Your task to perform on an android device: turn off notifications settings in the gmail app Image 0: 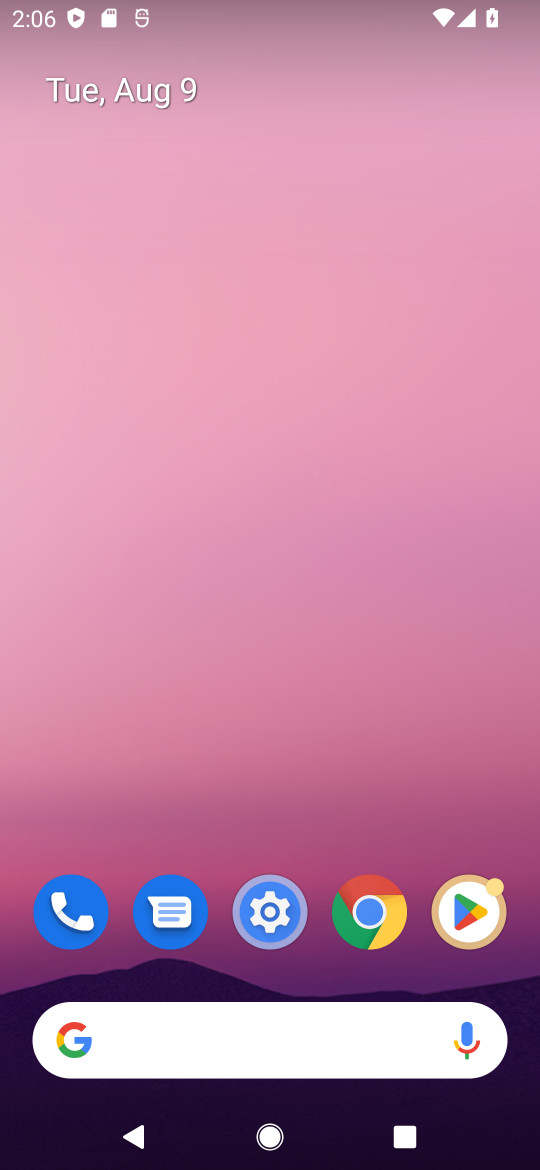
Step 0: drag from (307, 788) to (261, 202)
Your task to perform on an android device: turn off notifications settings in the gmail app Image 1: 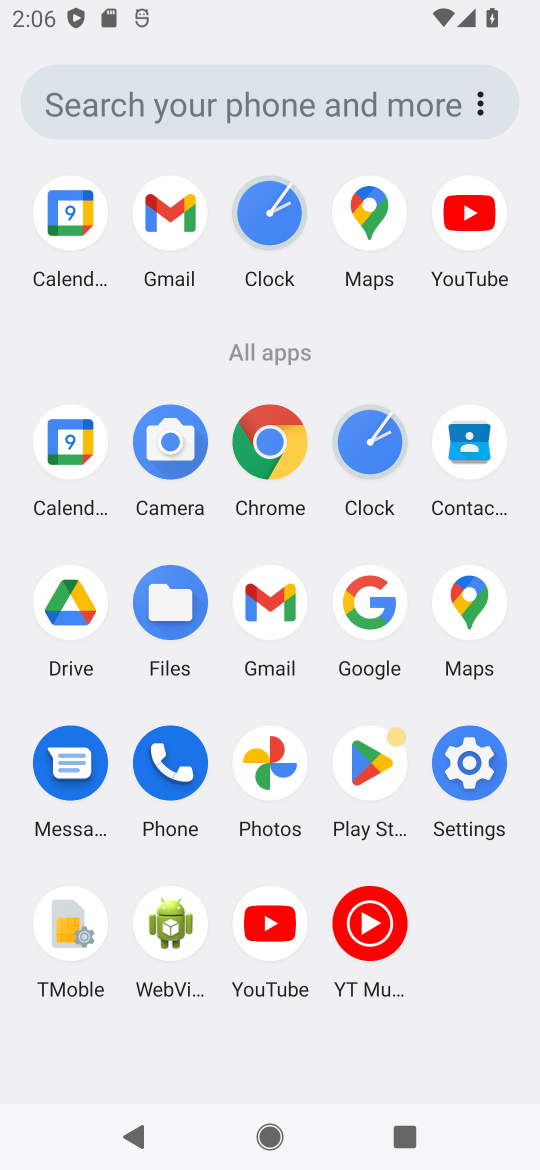
Step 1: click (271, 612)
Your task to perform on an android device: turn off notifications settings in the gmail app Image 2: 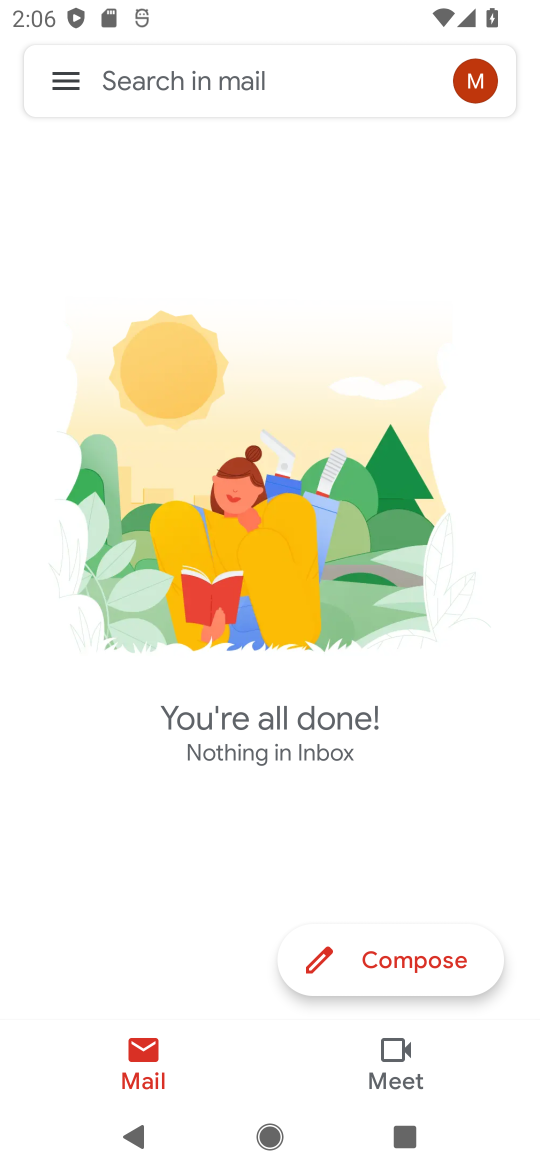
Step 2: click (54, 83)
Your task to perform on an android device: turn off notifications settings in the gmail app Image 3: 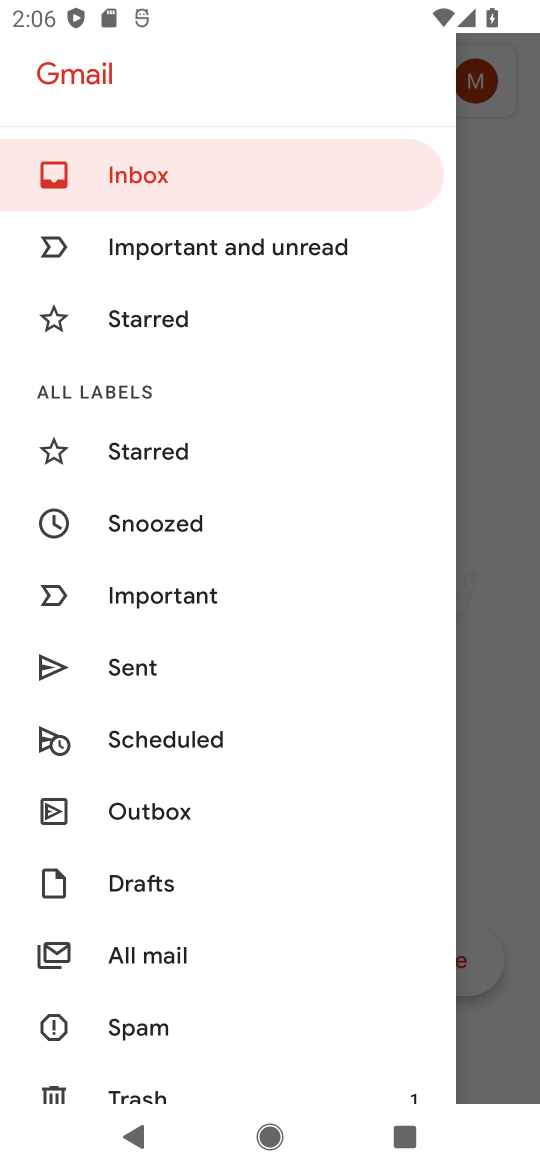
Step 3: drag from (260, 926) to (226, 460)
Your task to perform on an android device: turn off notifications settings in the gmail app Image 4: 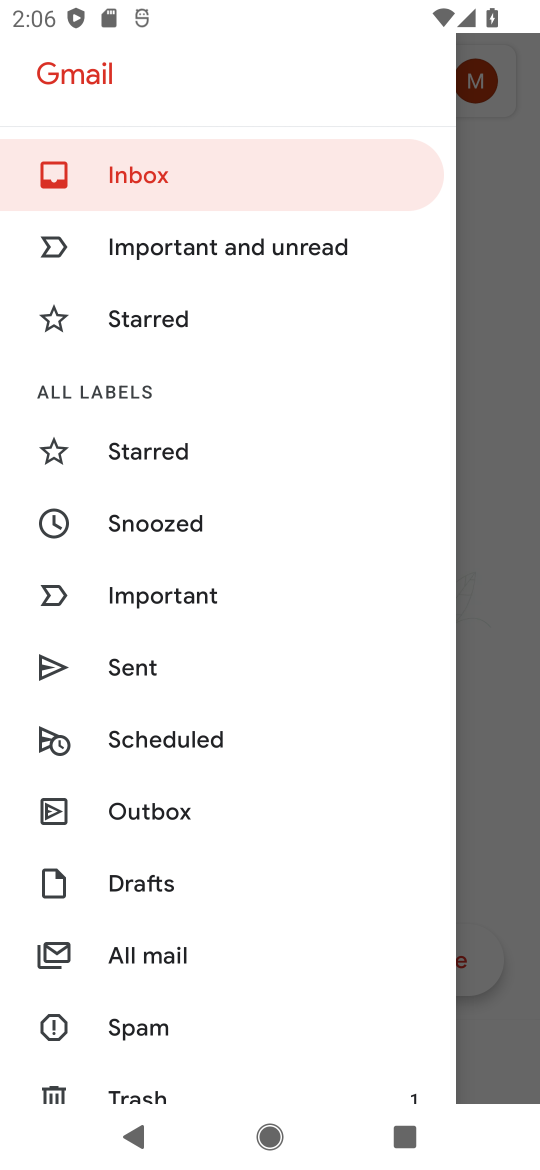
Step 4: drag from (230, 802) to (216, 279)
Your task to perform on an android device: turn off notifications settings in the gmail app Image 5: 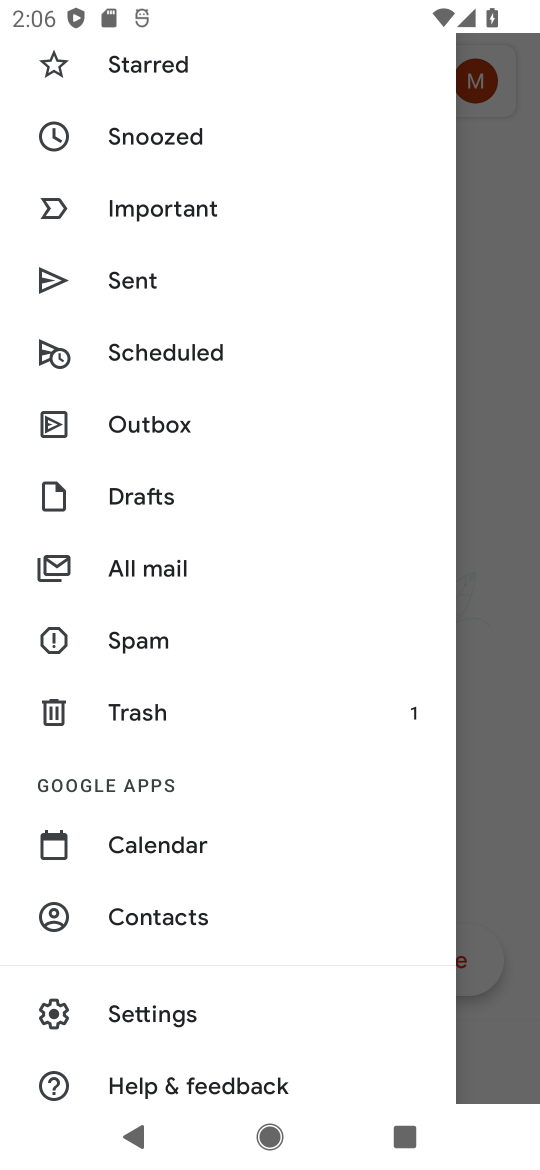
Step 5: click (139, 1011)
Your task to perform on an android device: turn off notifications settings in the gmail app Image 6: 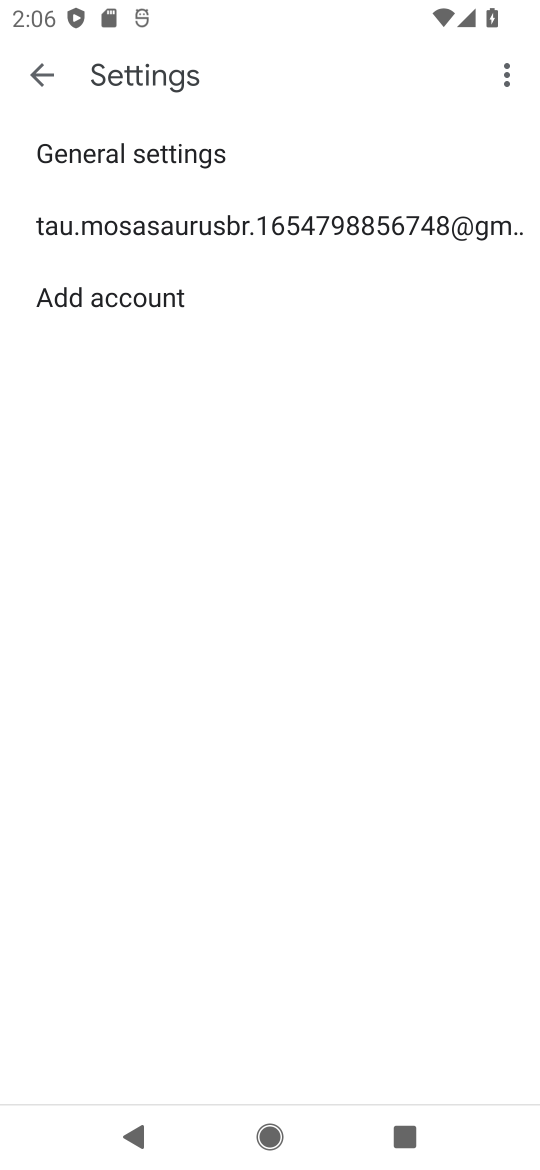
Step 6: click (136, 148)
Your task to perform on an android device: turn off notifications settings in the gmail app Image 7: 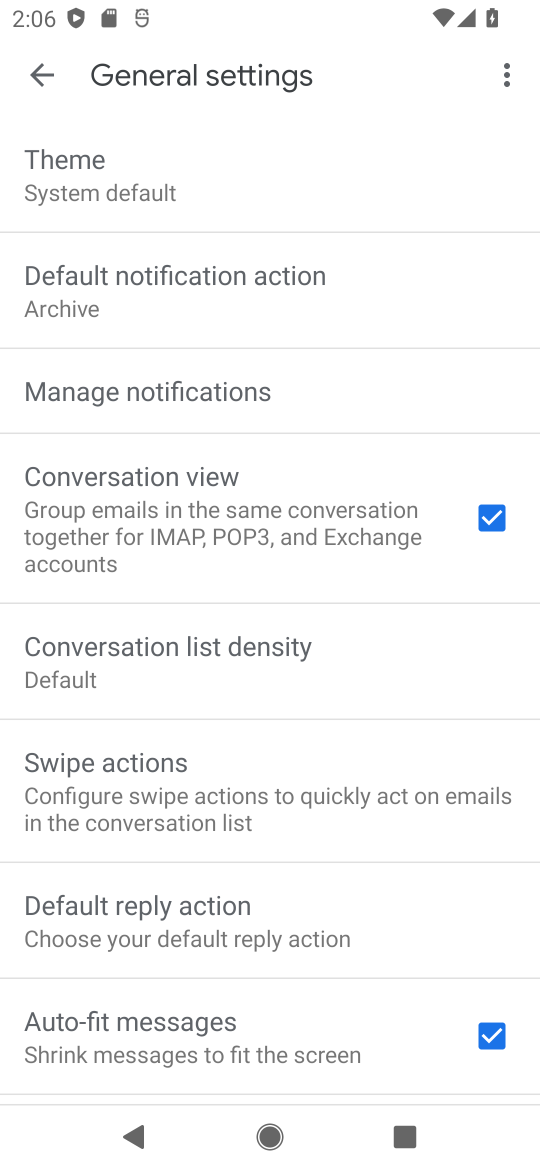
Step 7: click (183, 386)
Your task to perform on an android device: turn off notifications settings in the gmail app Image 8: 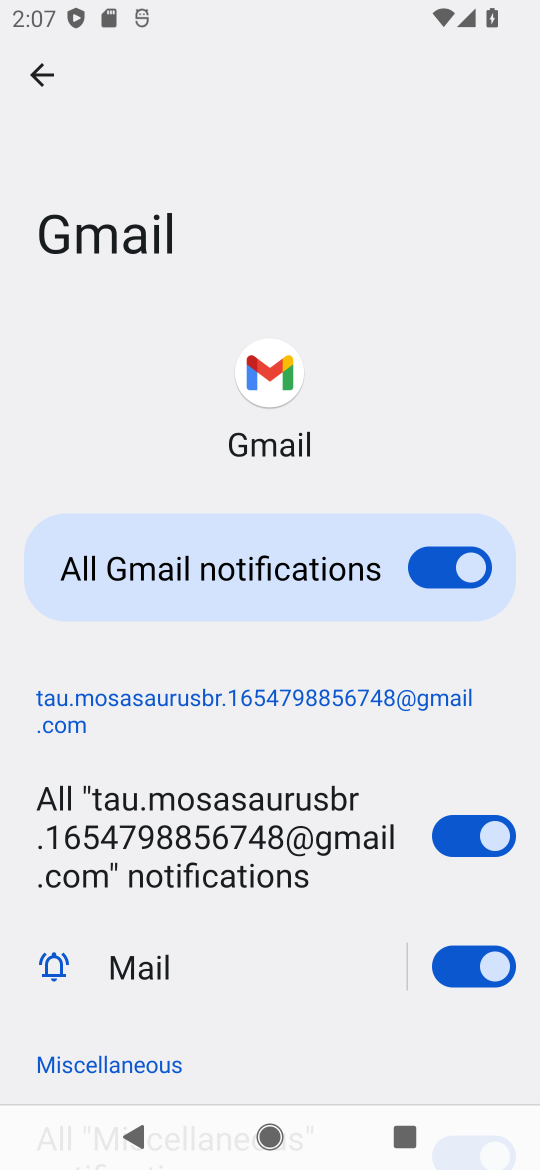
Step 8: click (456, 570)
Your task to perform on an android device: turn off notifications settings in the gmail app Image 9: 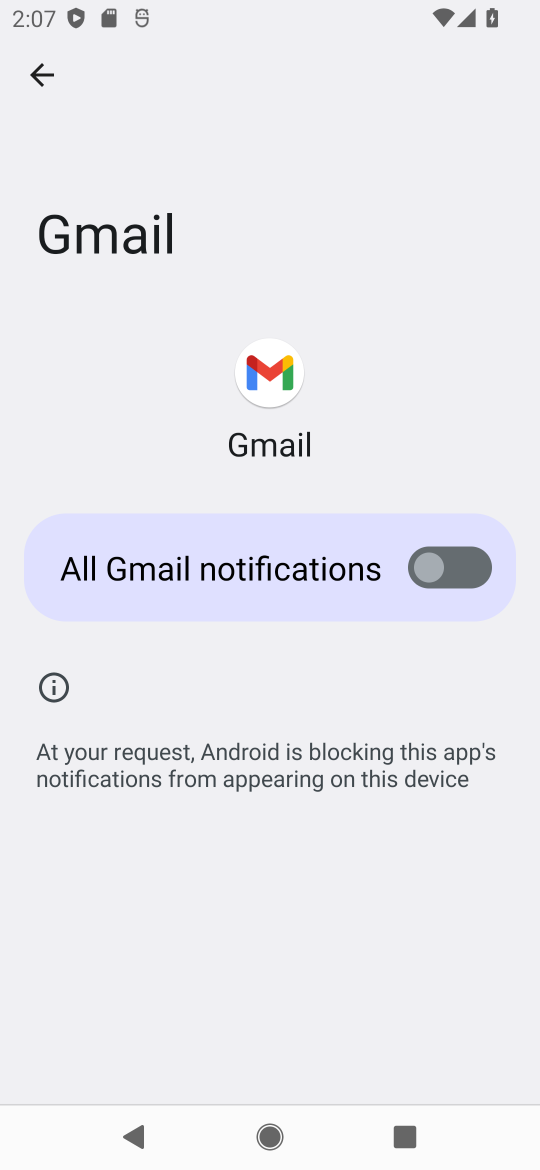
Step 9: task complete